Your task to perform on an android device: check the backup settings in the google photos Image 0: 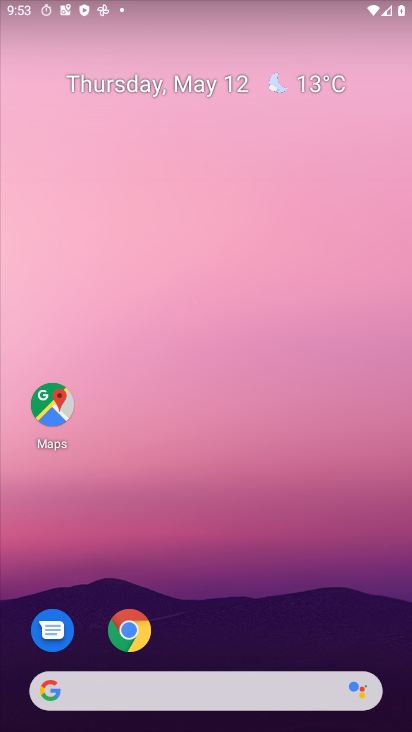
Step 0: drag from (267, 680) to (250, 267)
Your task to perform on an android device: check the backup settings in the google photos Image 1: 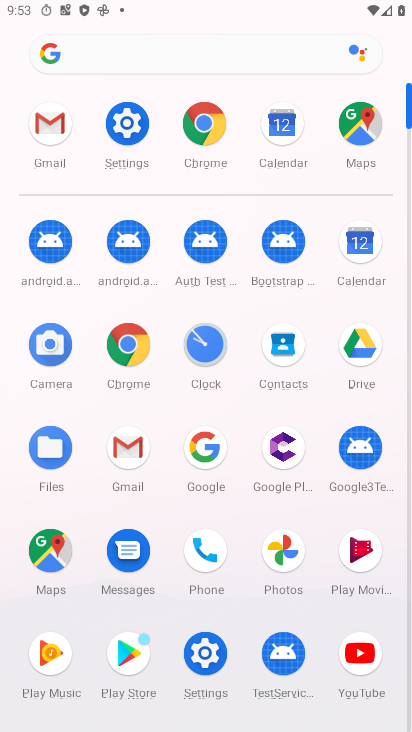
Step 1: click (297, 546)
Your task to perform on an android device: check the backup settings in the google photos Image 2: 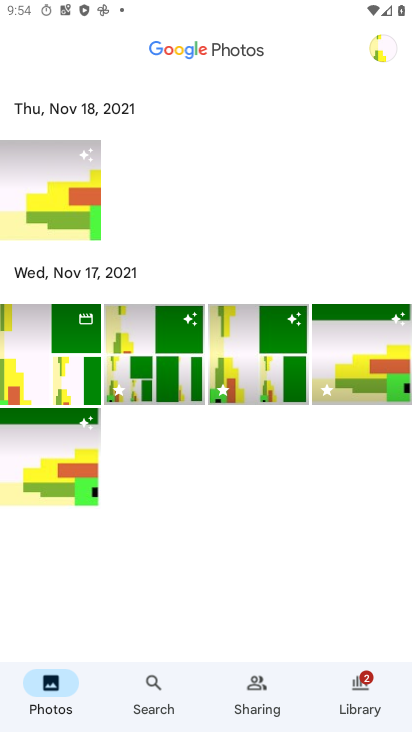
Step 2: click (377, 39)
Your task to perform on an android device: check the backup settings in the google photos Image 3: 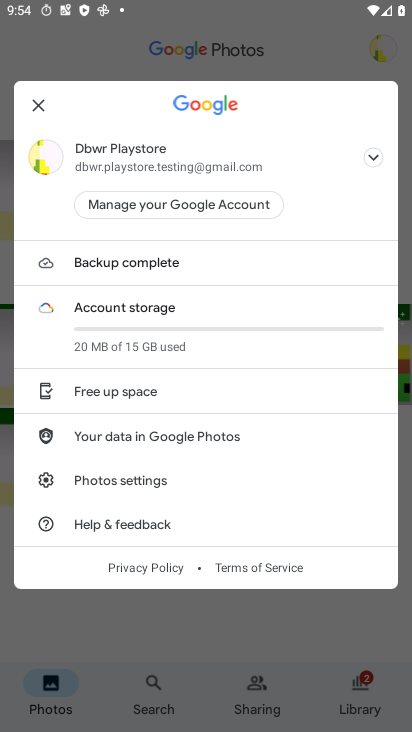
Step 3: click (136, 483)
Your task to perform on an android device: check the backup settings in the google photos Image 4: 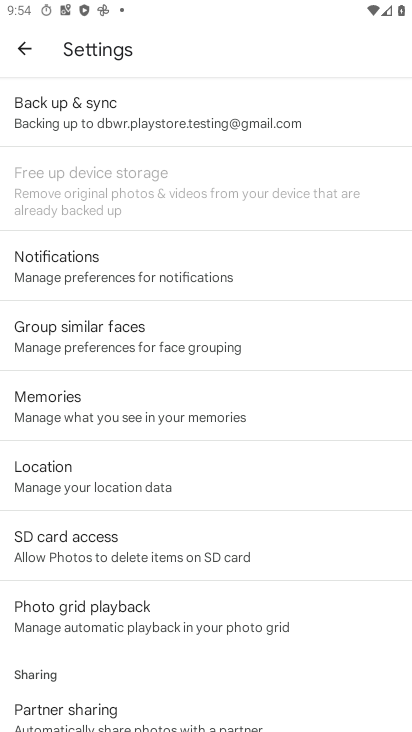
Step 4: click (100, 93)
Your task to perform on an android device: check the backup settings in the google photos Image 5: 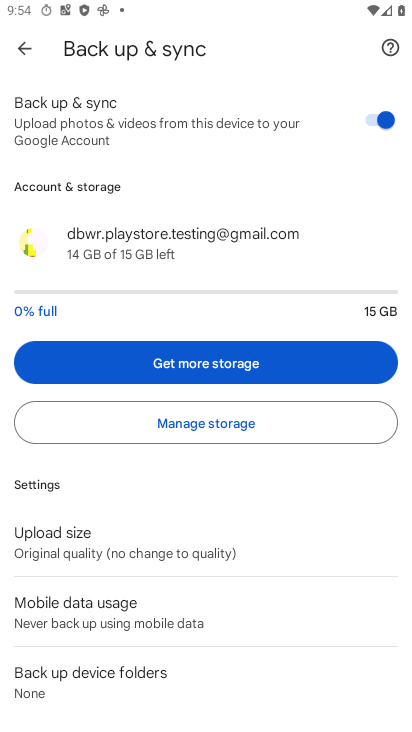
Step 5: task complete